Your task to perform on an android device: Open Yahoo.com Image 0: 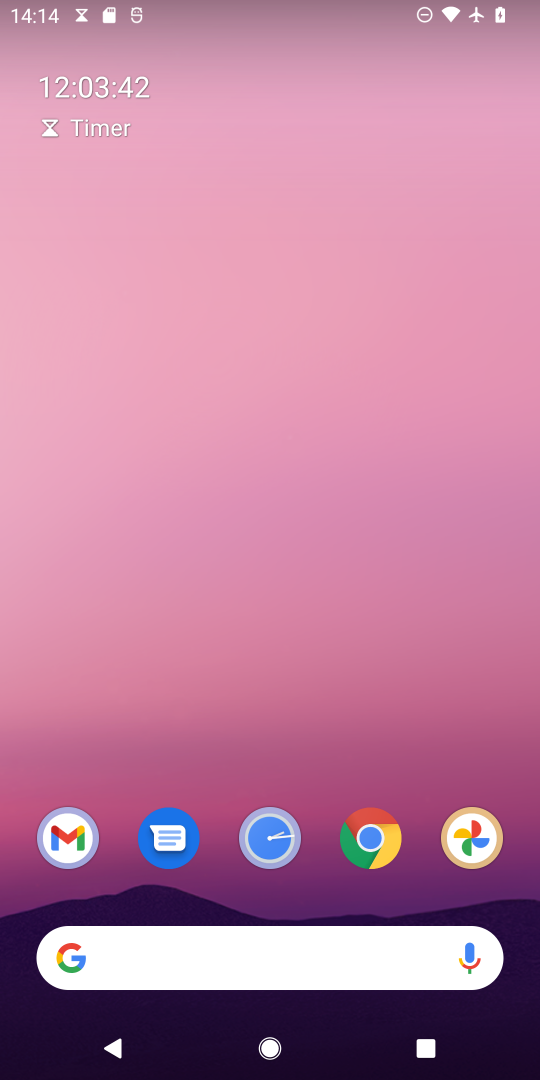
Step 0: press home button
Your task to perform on an android device: Open Yahoo.com Image 1: 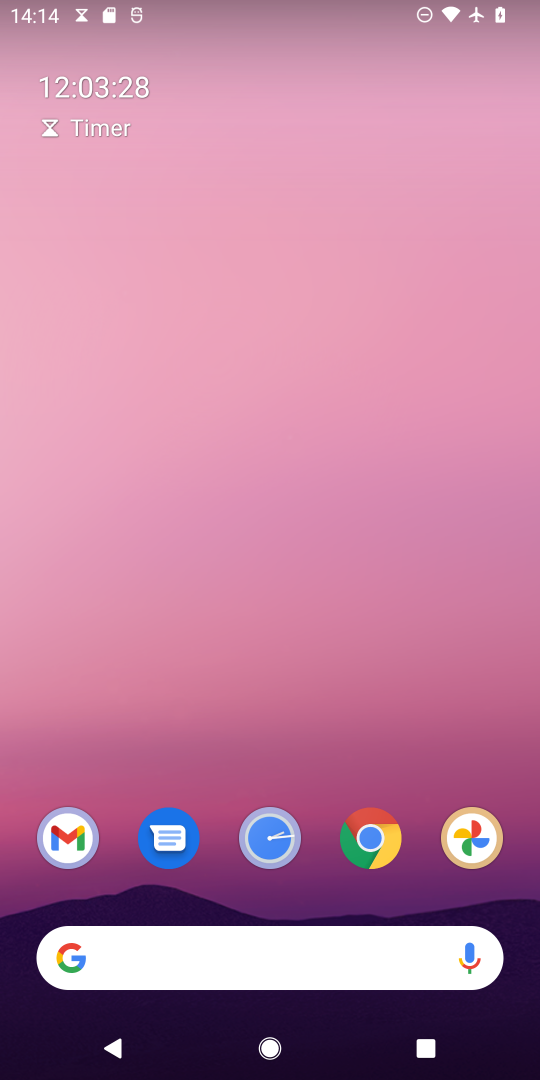
Step 1: click (73, 963)
Your task to perform on an android device: Open Yahoo.com Image 2: 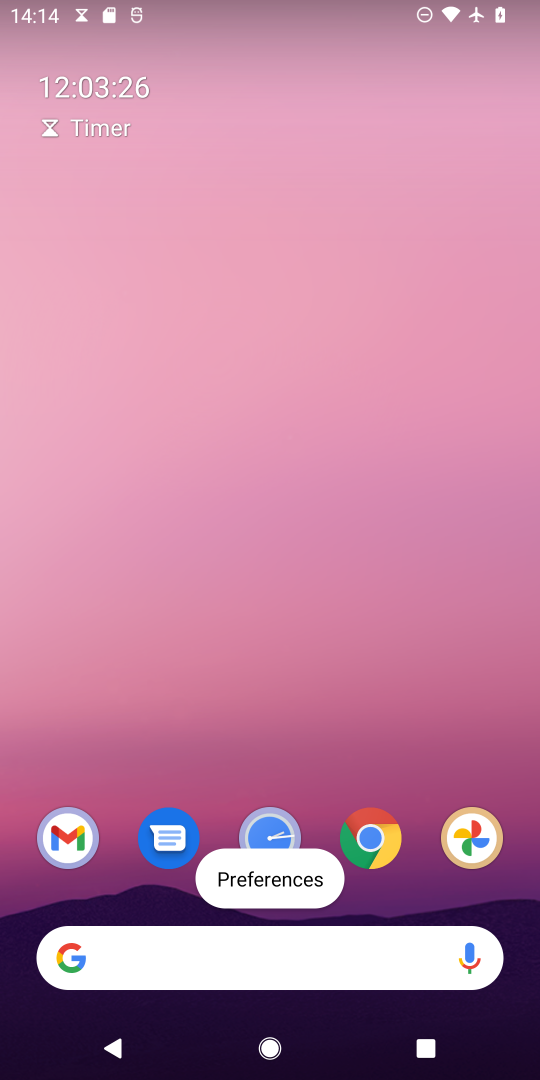
Step 2: click (69, 959)
Your task to perform on an android device: Open Yahoo.com Image 3: 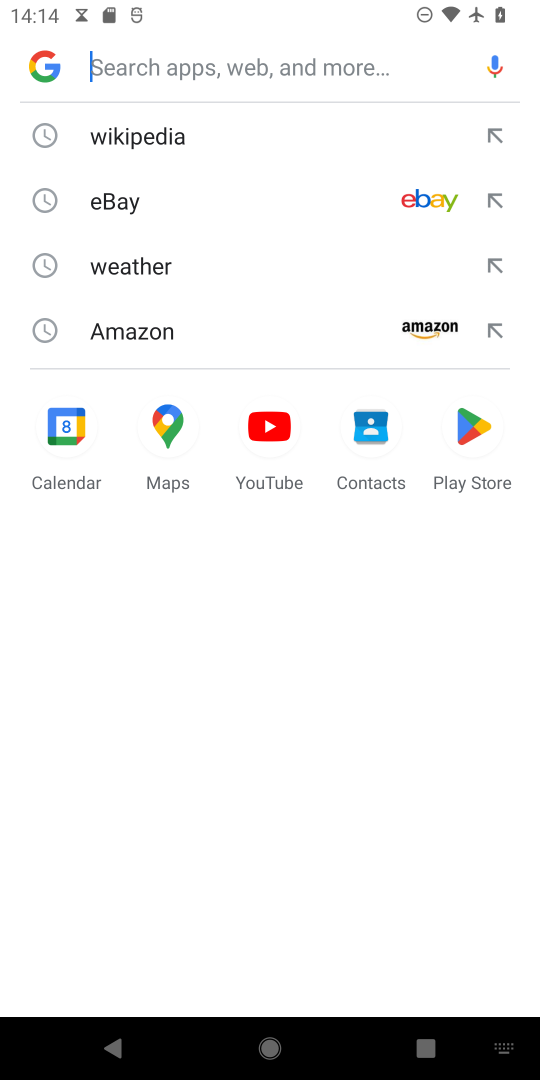
Step 3: type "Yahoo.com"
Your task to perform on an android device: Open Yahoo.com Image 4: 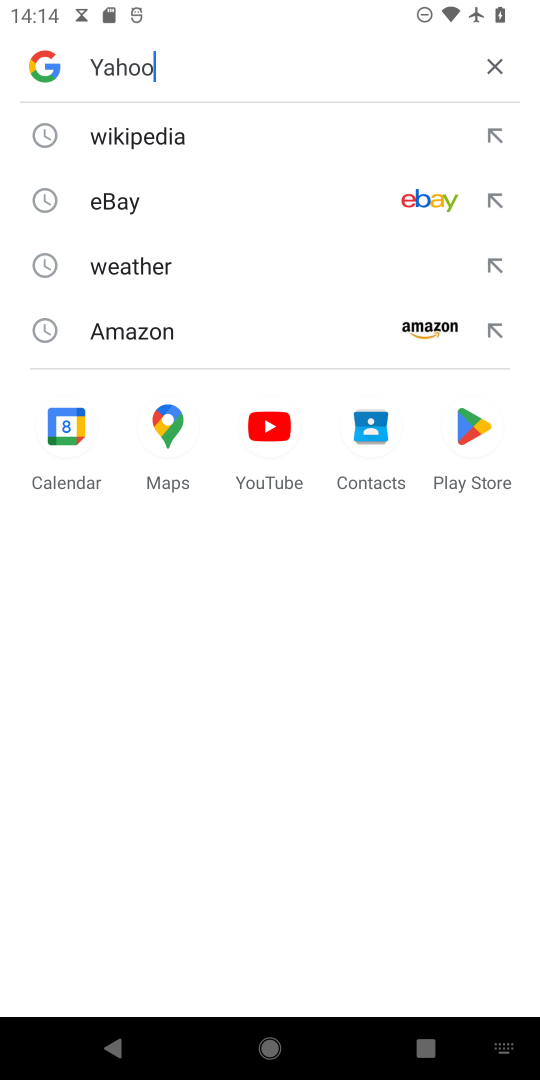
Step 4: press enter
Your task to perform on an android device: Open Yahoo.com Image 5: 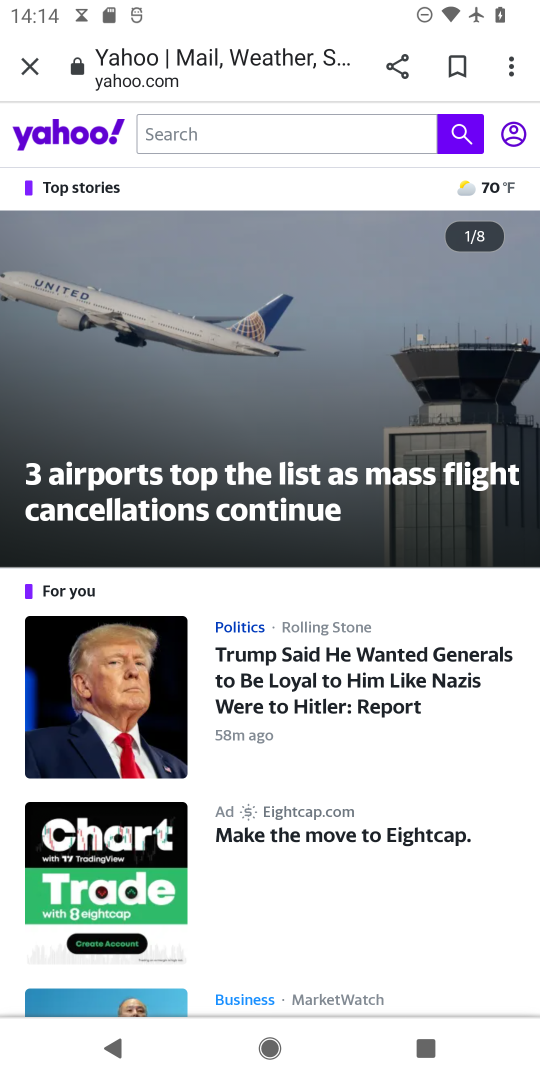
Step 5: task complete